Your task to perform on an android device: Search for pizza restaurants on Maps Image 0: 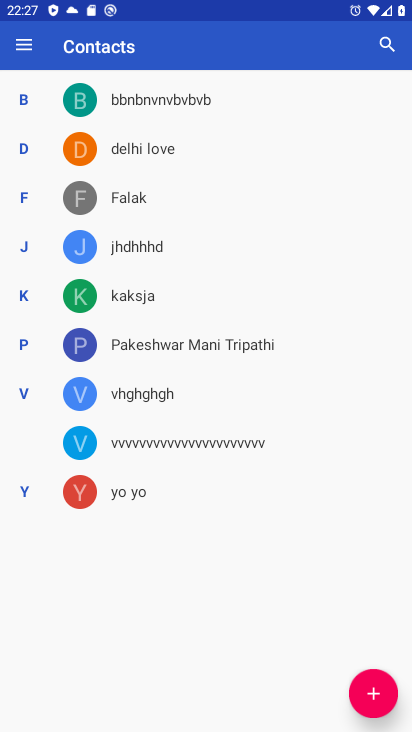
Step 0: press home button
Your task to perform on an android device: Search for pizza restaurants on Maps Image 1: 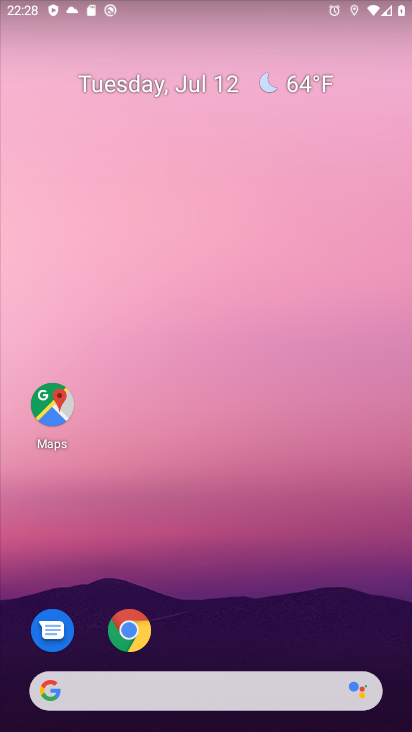
Step 1: drag from (205, 663) to (365, 555)
Your task to perform on an android device: Search for pizza restaurants on Maps Image 2: 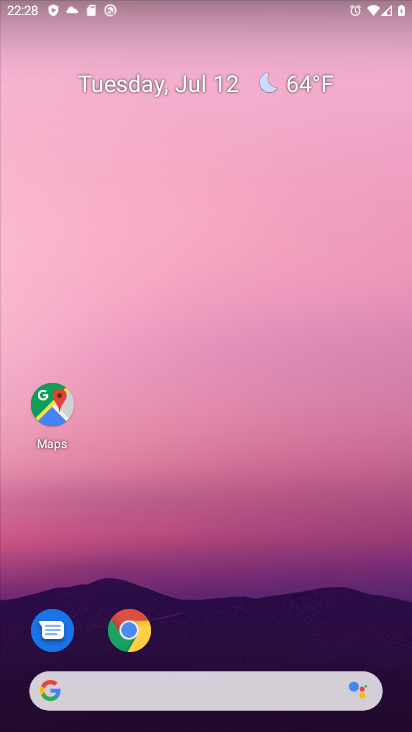
Step 2: drag from (226, 668) to (387, 492)
Your task to perform on an android device: Search for pizza restaurants on Maps Image 3: 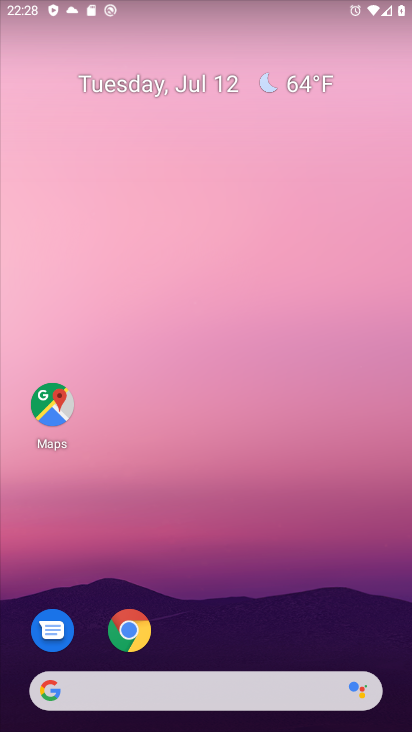
Step 3: drag from (191, 667) to (189, 39)
Your task to perform on an android device: Search for pizza restaurants on Maps Image 4: 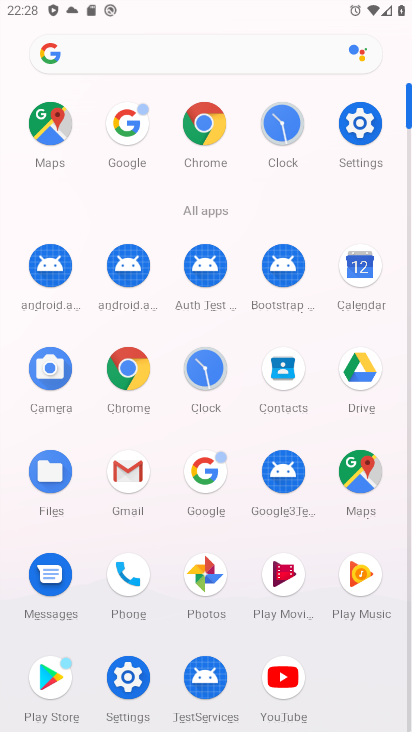
Step 4: click (359, 481)
Your task to perform on an android device: Search for pizza restaurants on Maps Image 5: 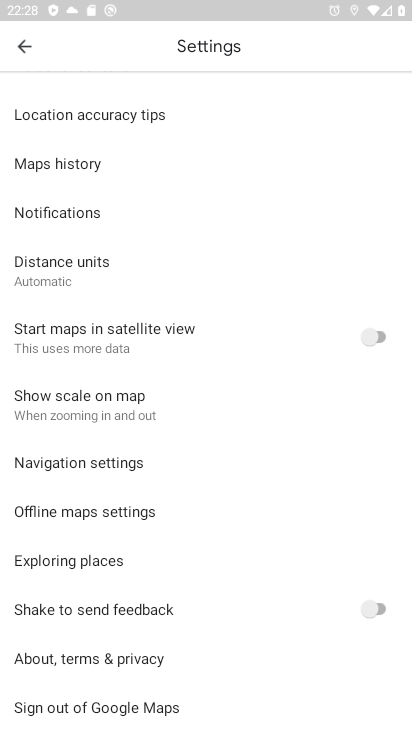
Step 5: click (21, 52)
Your task to perform on an android device: Search for pizza restaurants on Maps Image 6: 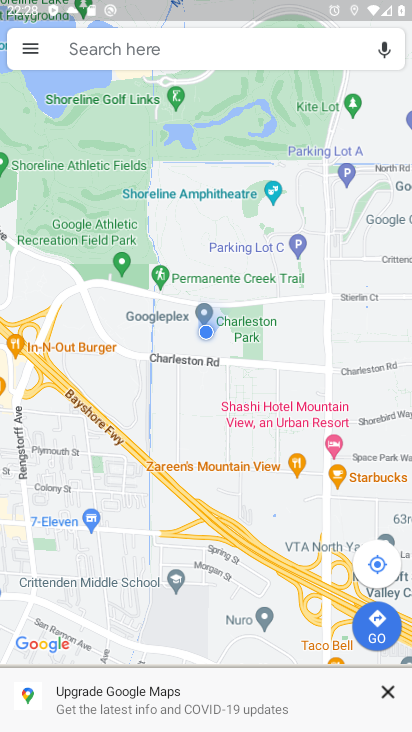
Step 6: click (94, 51)
Your task to perform on an android device: Search for pizza restaurants on Maps Image 7: 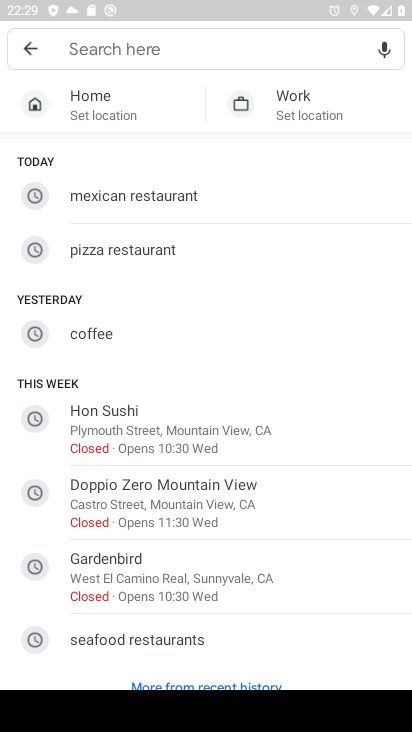
Step 7: type "pizza restaurants"
Your task to perform on an android device: Search for pizza restaurants on Maps Image 8: 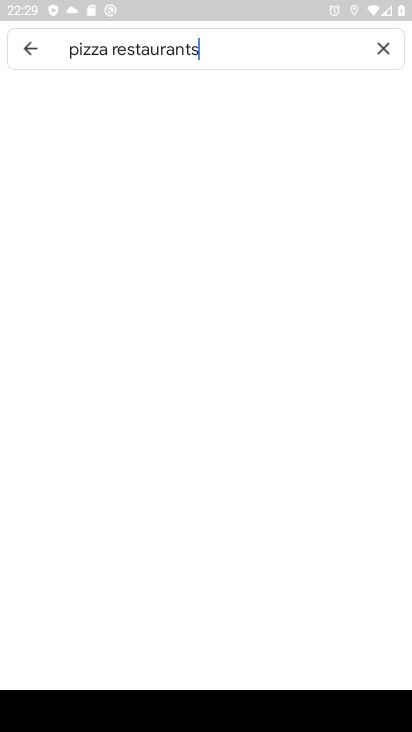
Step 8: type ""
Your task to perform on an android device: Search for pizza restaurants on Maps Image 9: 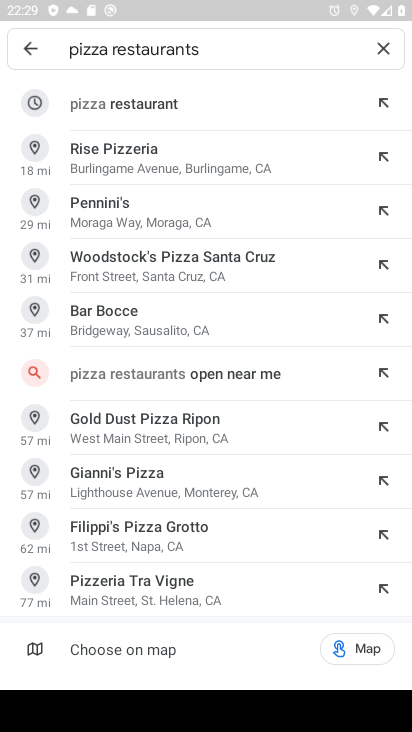
Step 9: click (114, 99)
Your task to perform on an android device: Search for pizza restaurants on Maps Image 10: 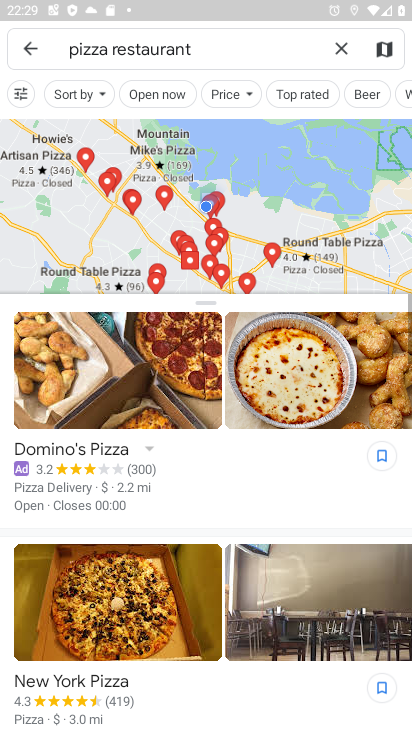
Step 10: task complete